Your task to perform on an android device: open chrome and create a bookmark for the current page Image 0: 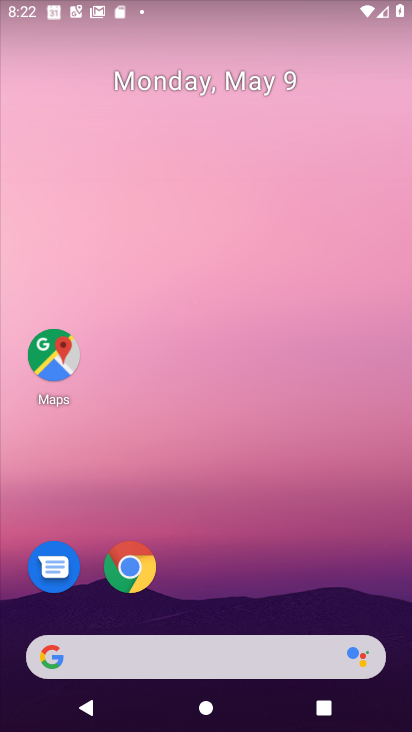
Step 0: drag from (213, 566) to (285, 121)
Your task to perform on an android device: open chrome and create a bookmark for the current page Image 1: 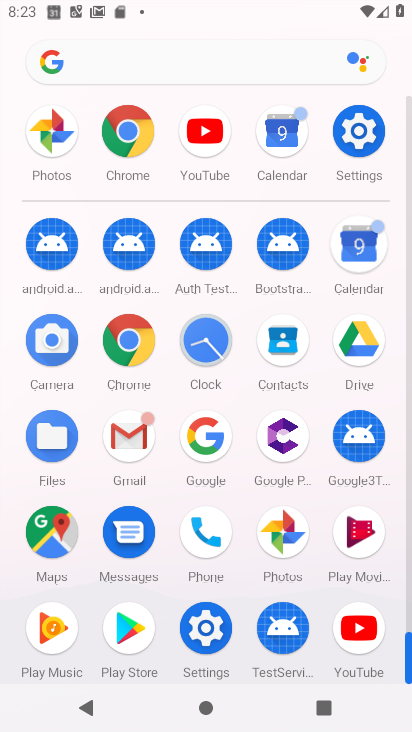
Step 1: click (353, 140)
Your task to perform on an android device: open chrome and create a bookmark for the current page Image 2: 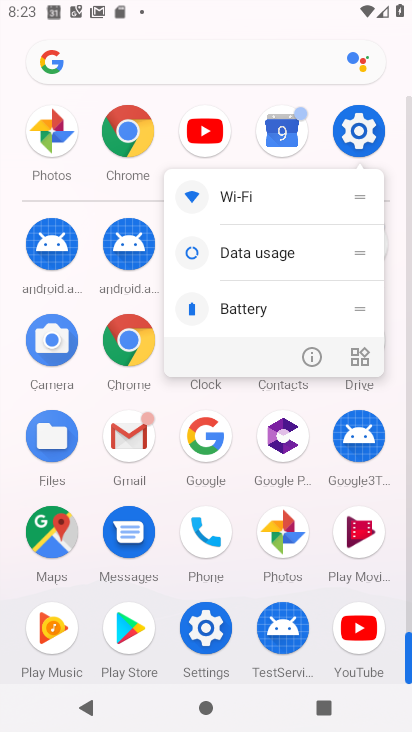
Step 2: click (123, 325)
Your task to perform on an android device: open chrome and create a bookmark for the current page Image 3: 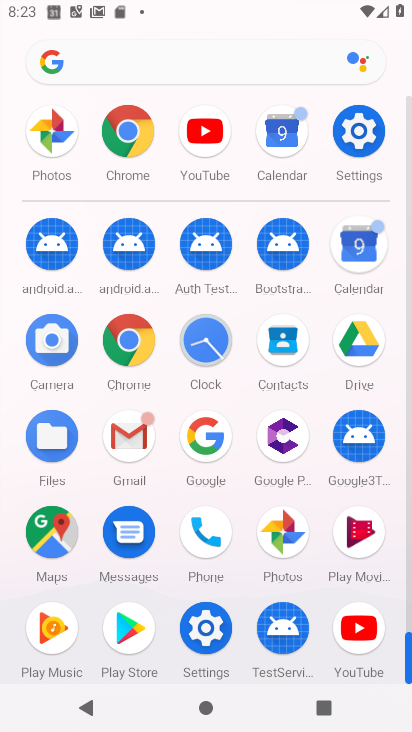
Step 3: click (126, 330)
Your task to perform on an android device: open chrome and create a bookmark for the current page Image 4: 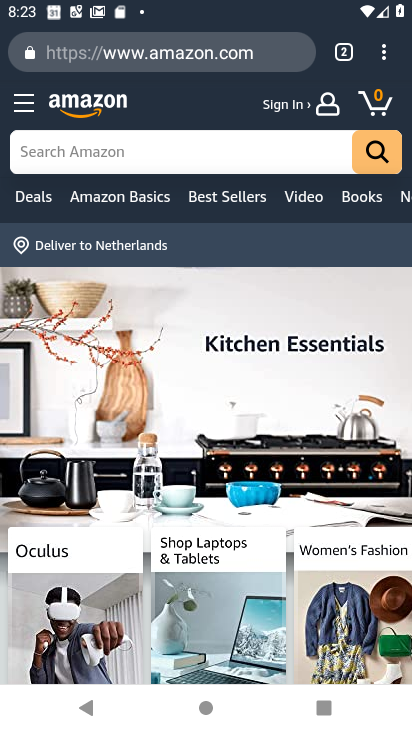
Step 4: drag from (380, 45) to (7, 428)
Your task to perform on an android device: open chrome and create a bookmark for the current page Image 5: 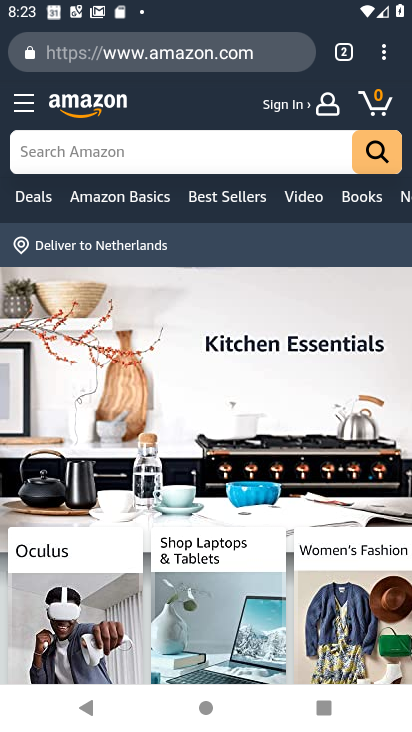
Step 5: drag from (97, 371) to (182, 101)
Your task to perform on an android device: open chrome and create a bookmark for the current page Image 6: 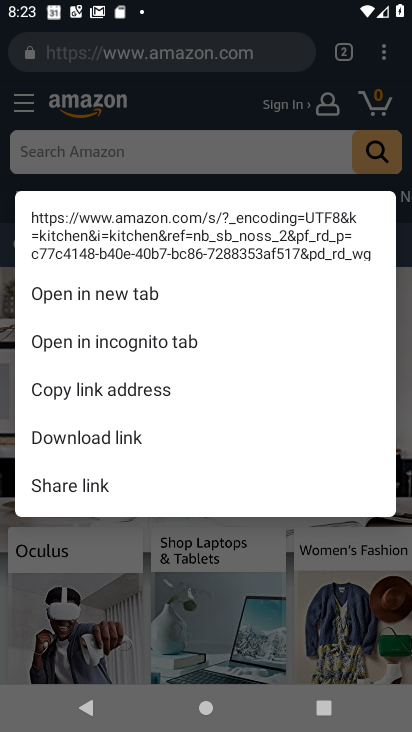
Step 6: click (115, 295)
Your task to perform on an android device: open chrome and create a bookmark for the current page Image 7: 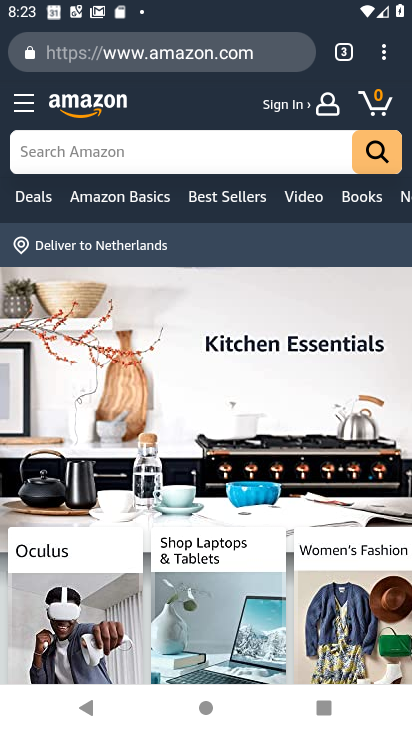
Step 7: drag from (256, 349) to (329, 125)
Your task to perform on an android device: open chrome and create a bookmark for the current page Image 8: 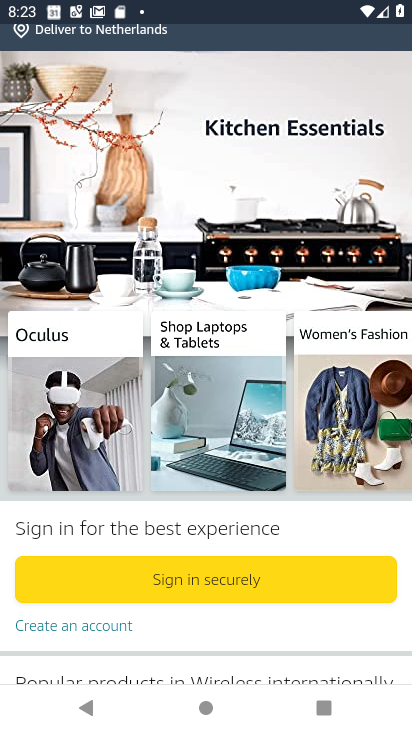
Step 8: click (218, 410)
Your task to perform on an android device: open chrome and create a bookmark for the current page Image 9: 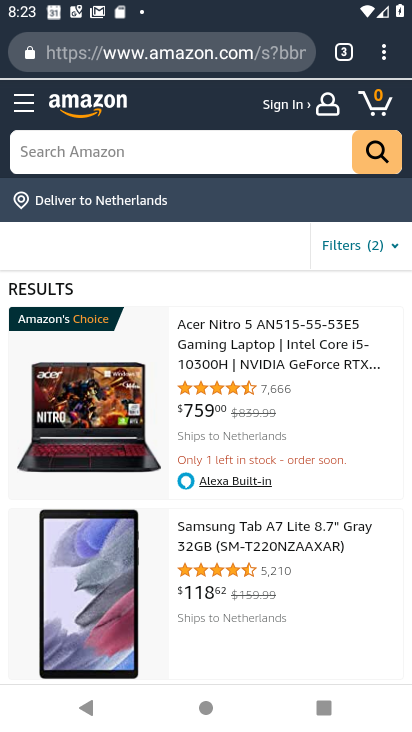
Step 9: drag from (381, 47) to (223, 53)
Your task to perform on an android device: open chrome and create a bookmark for the current page Image 10: 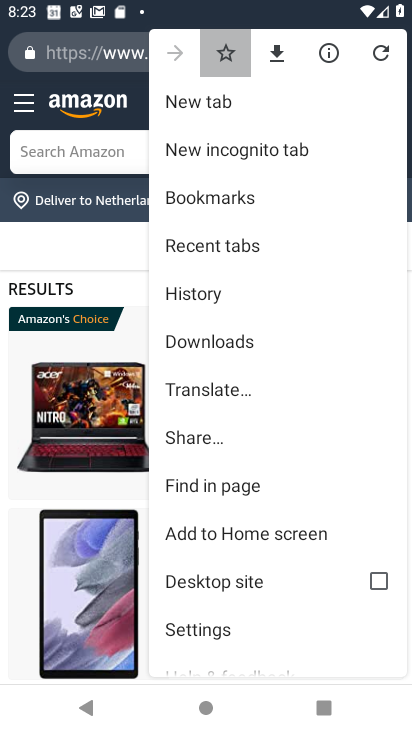
Step 10: click (223, 53)
Your task to perform on an android device: open chrome and create a bookmark for the current page Image 11: 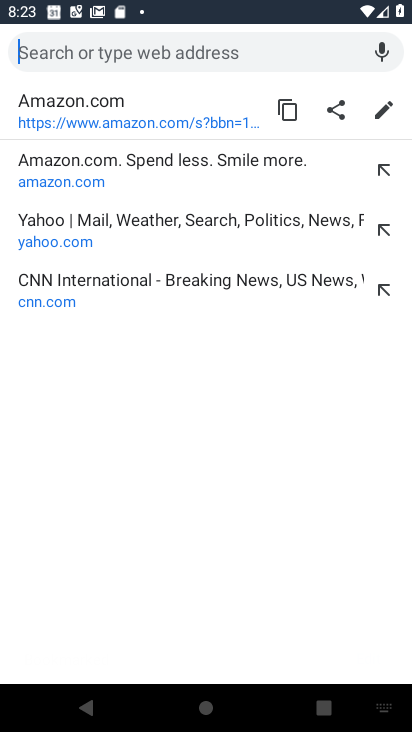
Step 11: task complete